Your task to perform on an android device: Show me recent news Image 0: 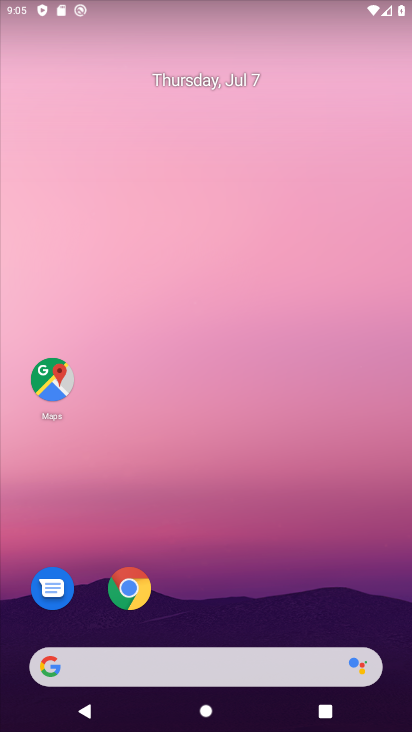
Step 0: click (209, 669)
Your task to perform on an android device: Show me recent news Image 1: 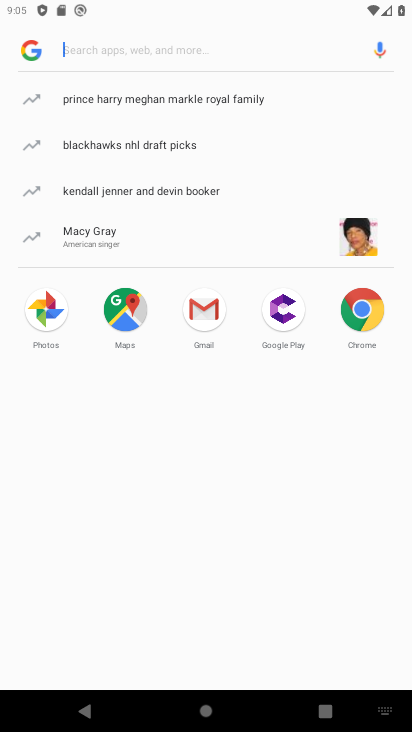
Step 1: click (39, 44)
Your task to perform on an android device: Show me recent news Image 2: 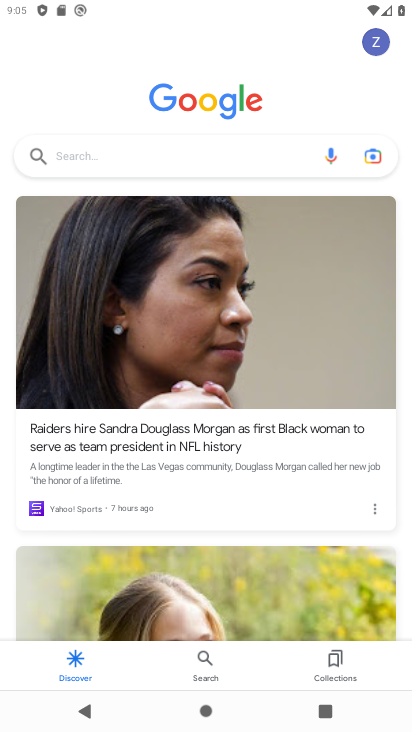
Step 2: task complete